Your task to perform on an android device: change alarm snooze length Image 0: 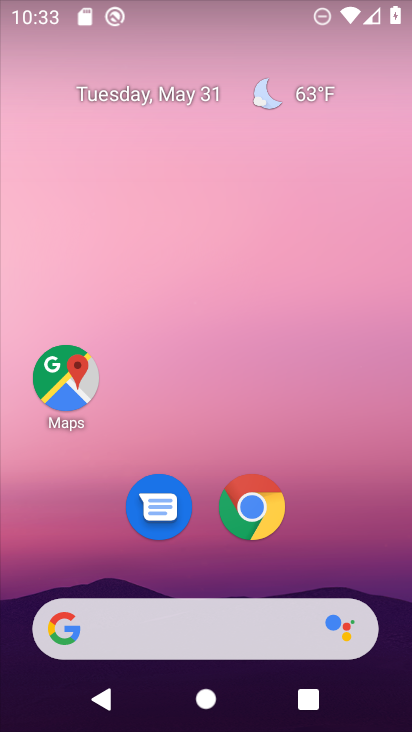
Step 0: drag from (84, 562) to (244, 93)
Your task to perform on an android device: change alarm snooze length Image 1: 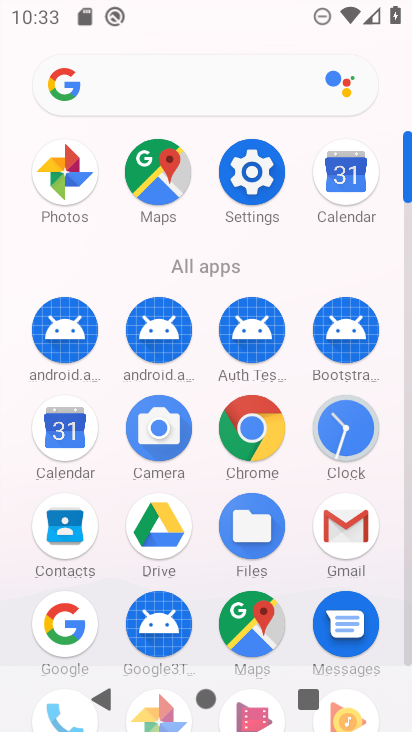
Step 1: click (347, 431)
Your task to perform on an android device: change alarm snooze length Image 2: 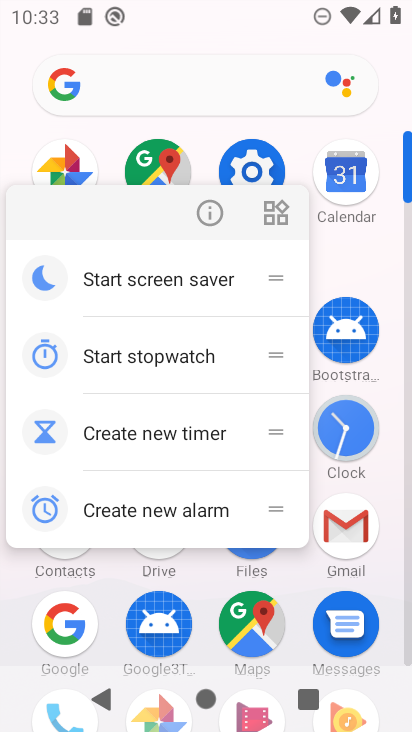
Step 2: click (347, 431)
Your task to perform on an android device: change alarm snooze length Image 3: 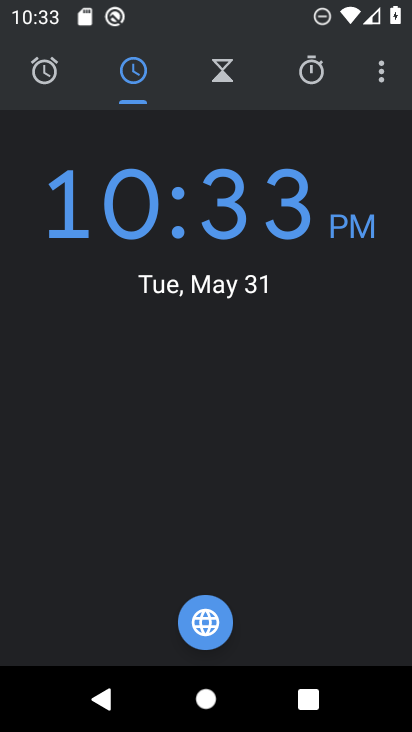
Step 3: click (394, 68)
Your task to perform on an android device: change alarm snooze length Image 4: 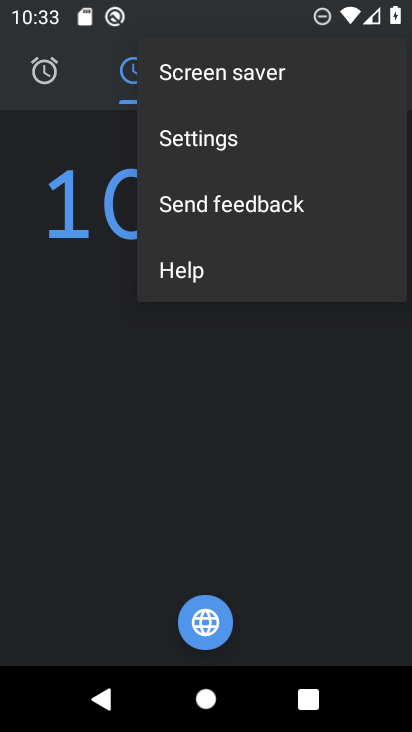
Step 4: click (296, 133)
Your task to perform on an android device: change alarm snooze length Image 5: 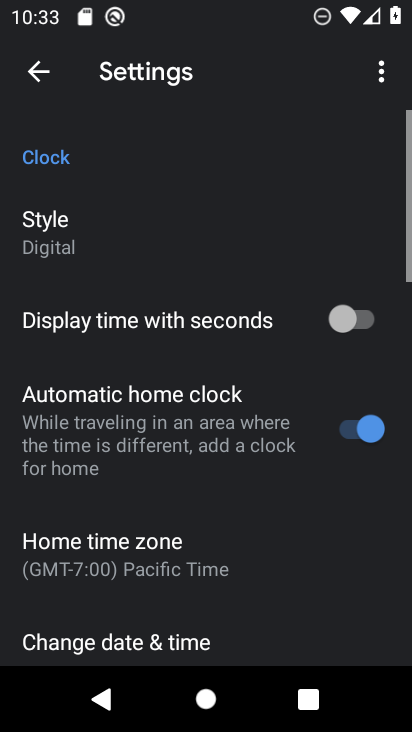
Step 5: drag from (130, 524) to (328, 32)
Your task to perform on an android device: change alarm snooze length Image 6: 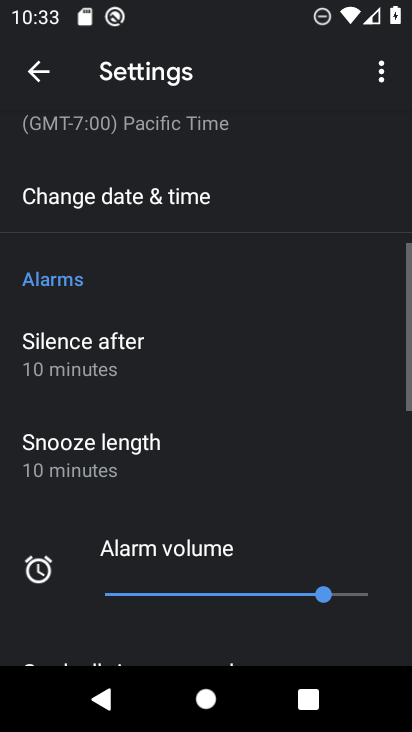
Step 6: drag from (176, 515) to (259, 293)
Your task to perform on an android device: change alarm snooze length Image 7: 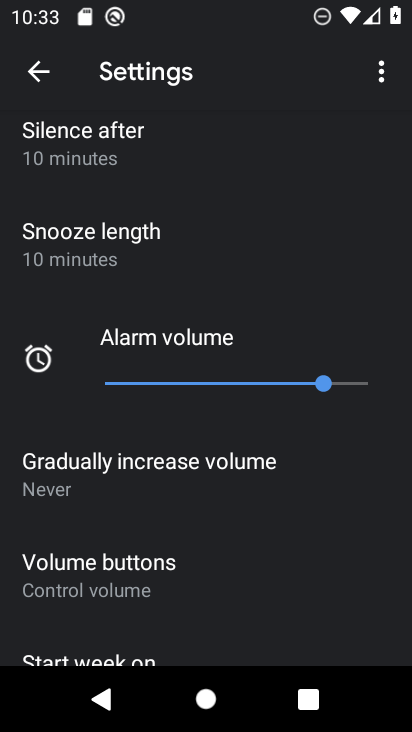
Step 7: click (215, 227)
Your task to perform on an android device: change alarm snooze length Image 8: 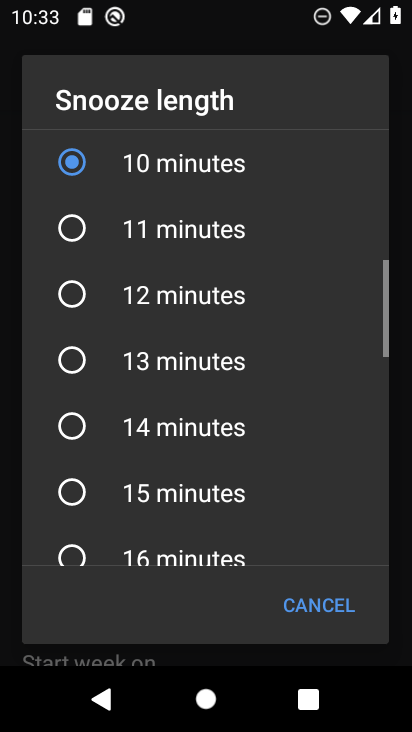
Step 8: click (211, 479)
Your task to perform on an android device: change alarm snooze length Image 9: 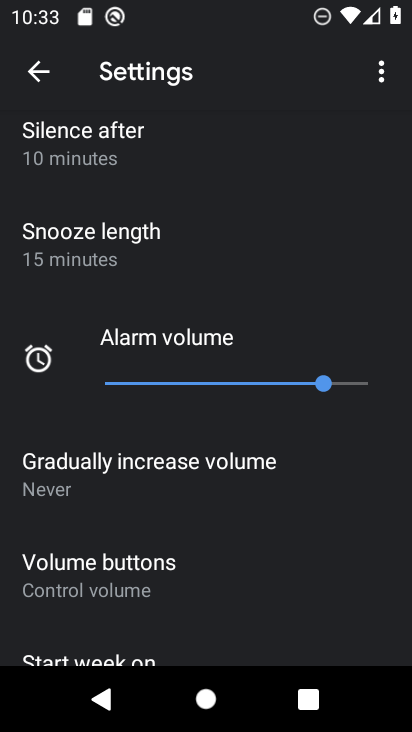
Step 9: task complete